Your task to perform on an android device: add a contact in the contacts app Image 0: 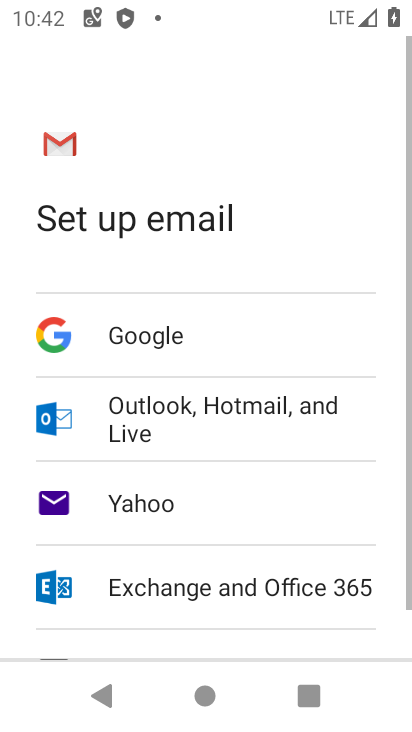
Step 0: press back button
Your task to perform on an android device: add a contact in the contacts app Image 1: 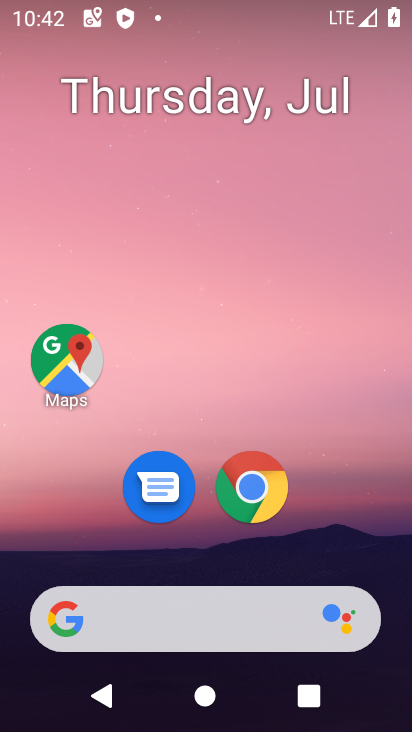
Step 1: drag from (212, 515) to (198, 1)
Your task to perform on an android device: add a contact in the contacts app Image 2: 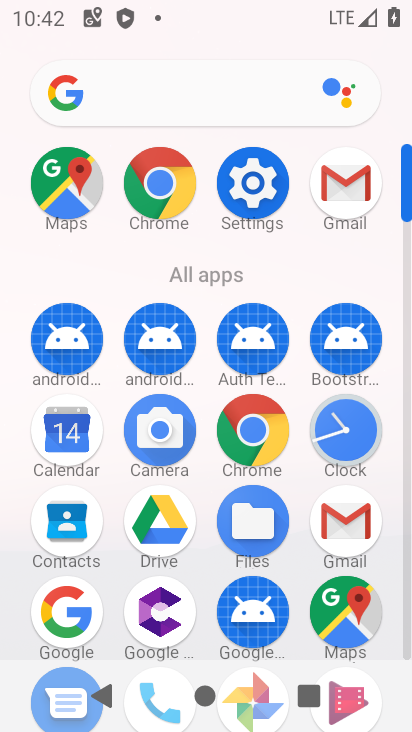
Step 2: click (62, 528)
Your task to perform on an android device: add a contact in the contacts app Image 3: 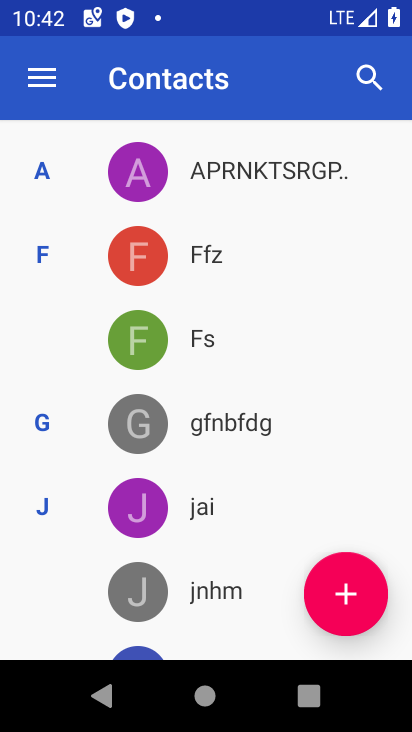
Step 3: click (336, 594)
Your task to perform on an android device: add a contact in the contacts app Image 4: 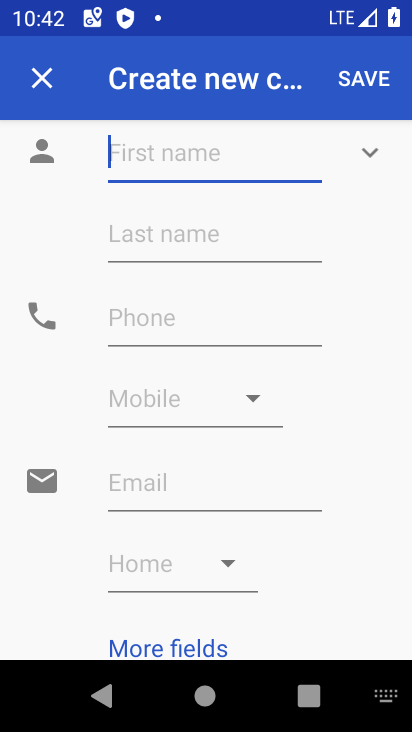
Step 4: click (148, 159)
Your task to perform on an android device: add a contact in the contacts app Image 5: 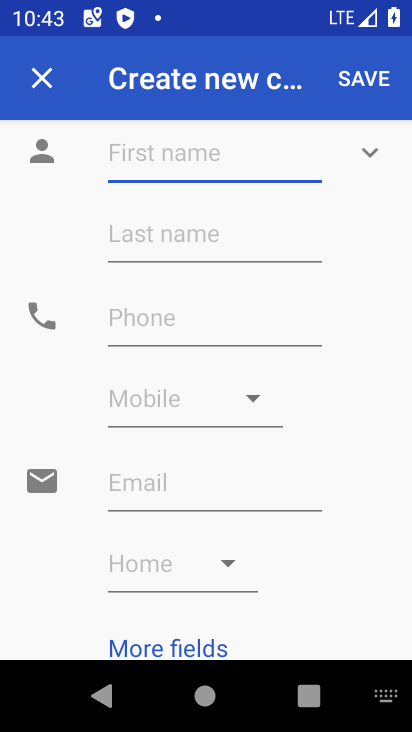
Step 5: type "fvhjvhjv"
Your task to perform on an android device: add a contact in the contacts app Image 6: 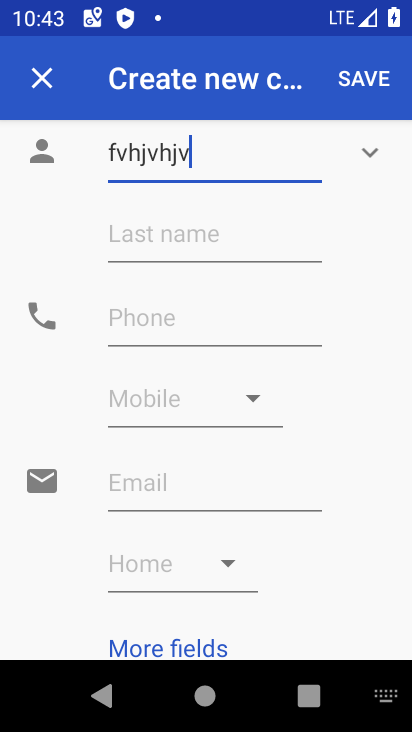
Step 6: click (151, 320)
Your task to perform on an android device: add a contact in the contacts app Image 7: 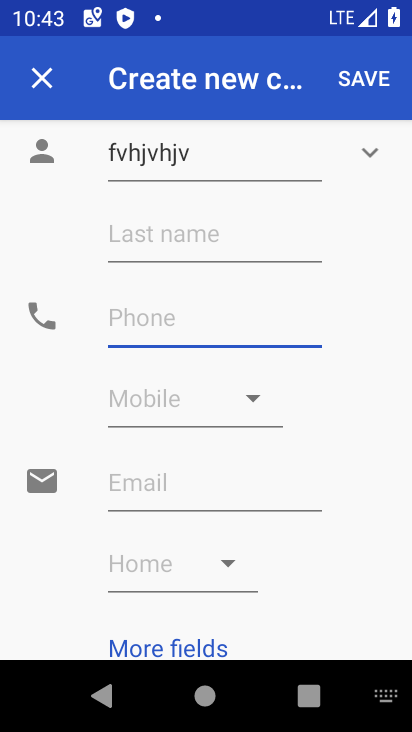
Step 7: type "7678678"
Your task to perform on an android device: add a contact in the contacts app Image 8: 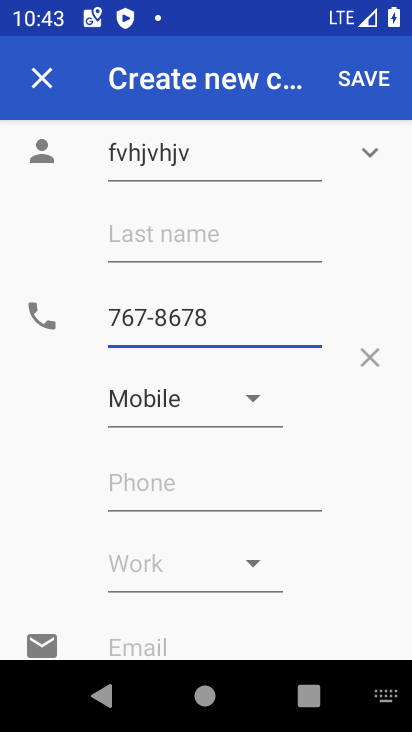
Step 8: click (372, 72)
Your task to perform on an android device: add a contact in the contacts app Image 9: 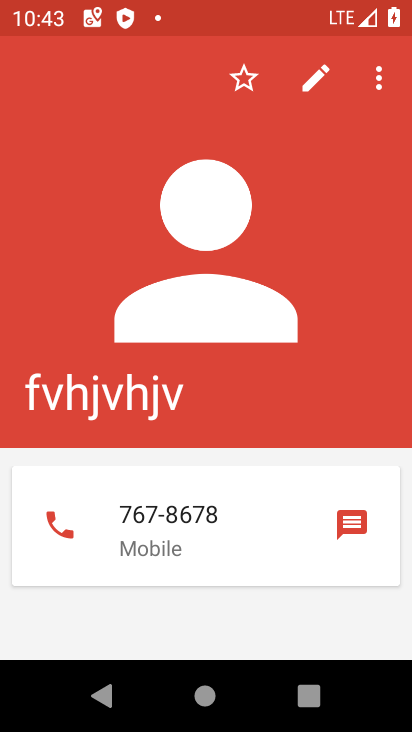
Step 9: task complete